Your task to perform on an android device: turn on wifi Image 0: 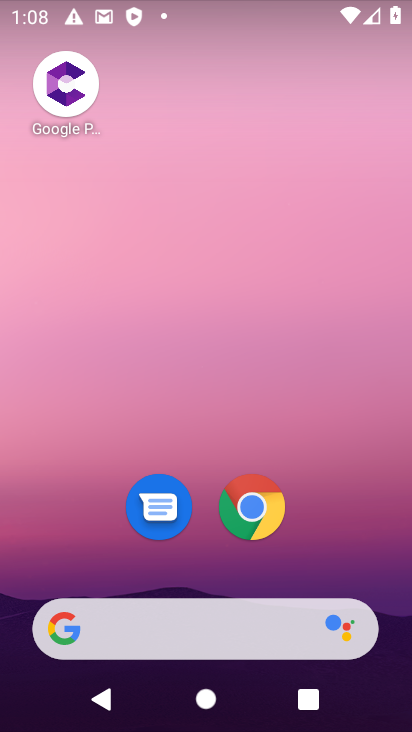
Step 0: drag from (215, 428) to (265, 81)
Your task to perform on an android device: turn on wifi Image 1: 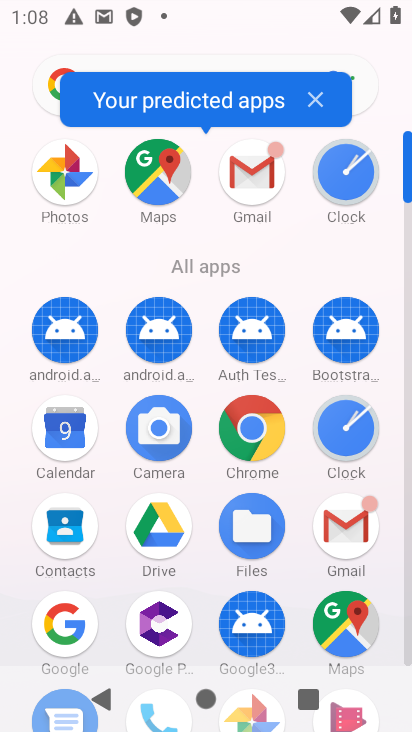
Step 1: task complete